Your task to perform on an android device: Open accessibility settings Image 0: 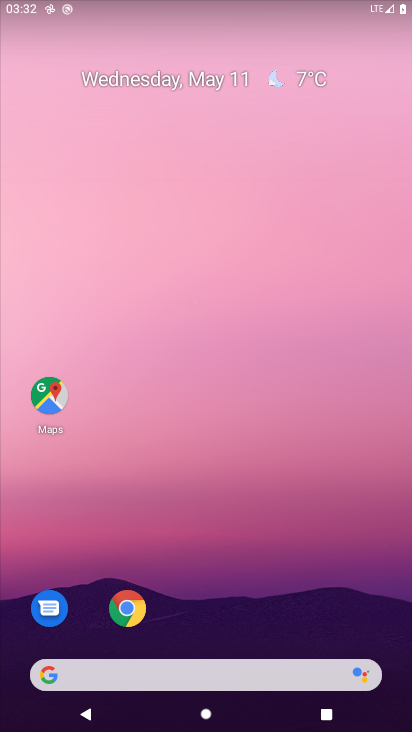
Step 0: drag from (227, 601) to (314, 5)
Your task to perform on an android device: Open accessibility settings Image 1: 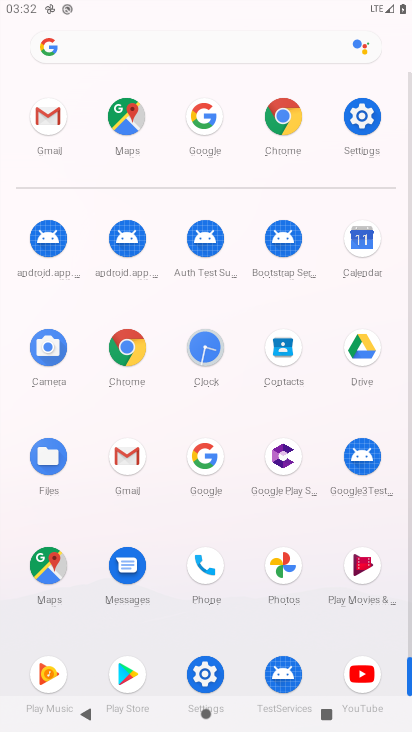
Step 1: click (364, 118)
Your task to perform on an android device: Open accessibility settings Image 2: 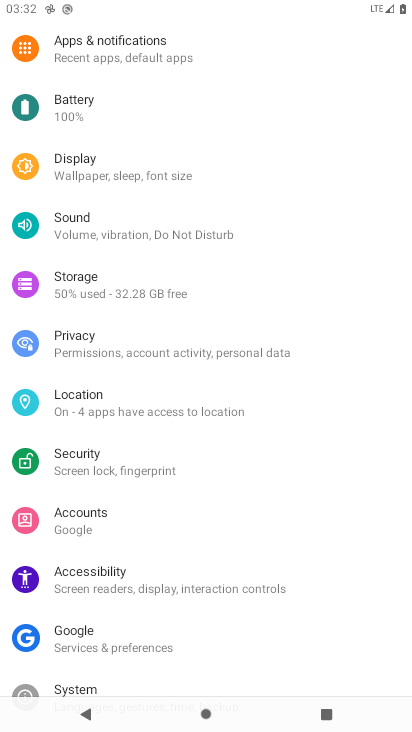
Step 2: click (107, 572)
Your task to perform on an android device: Open accessibility settings Image 3: 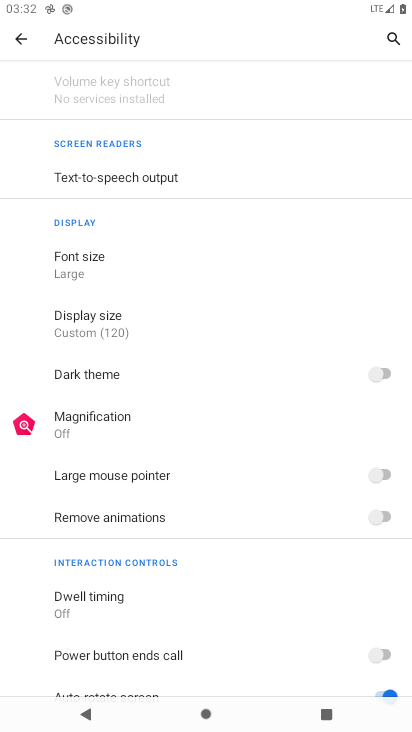
Step 3: task complete